Your task to perform on an android device: Go to CNN.com Image 0: 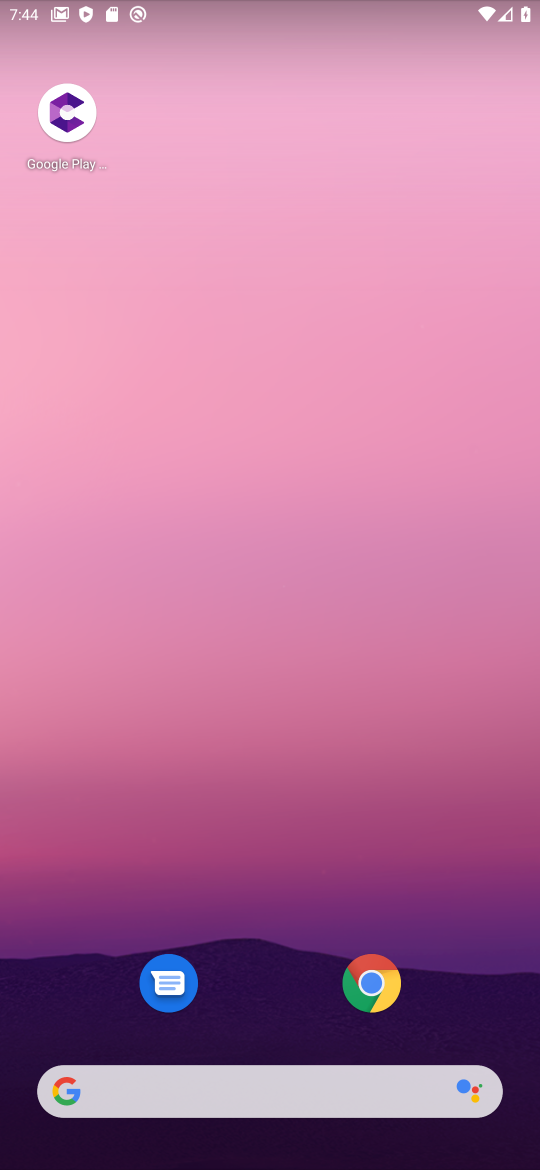
Step 0: click (386, 998)
Your task to perform on an android device: Go to CNN.com Image 1: 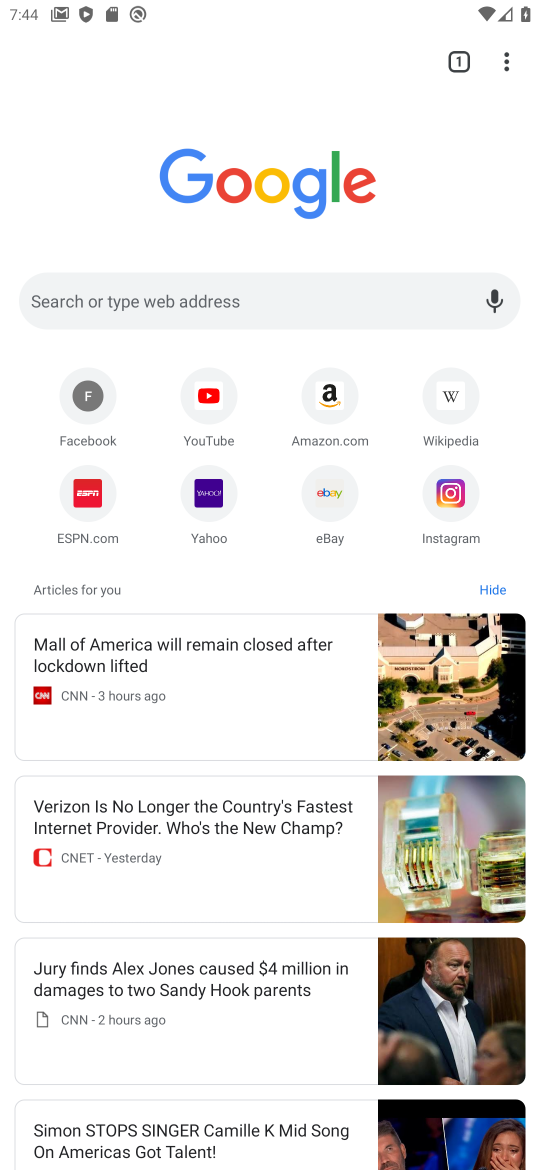
Step 1: click (237, 292)
Your task to perform on an android device: Go to CNN.com Image 2: 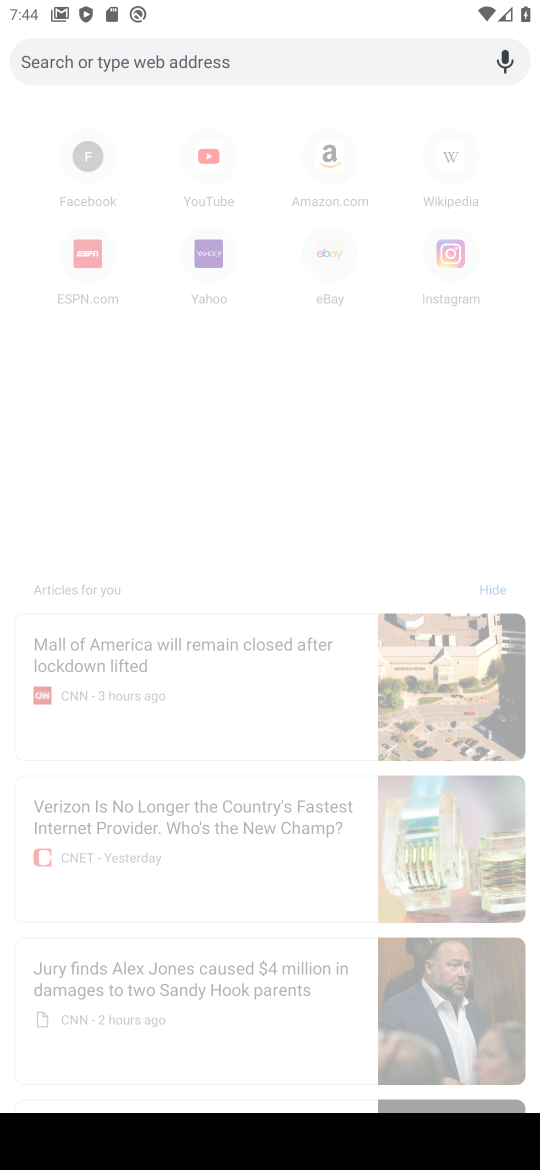
Step 2: type "CNN.com"
Your task to perform on an android device: Go to CNN.com Image 3: 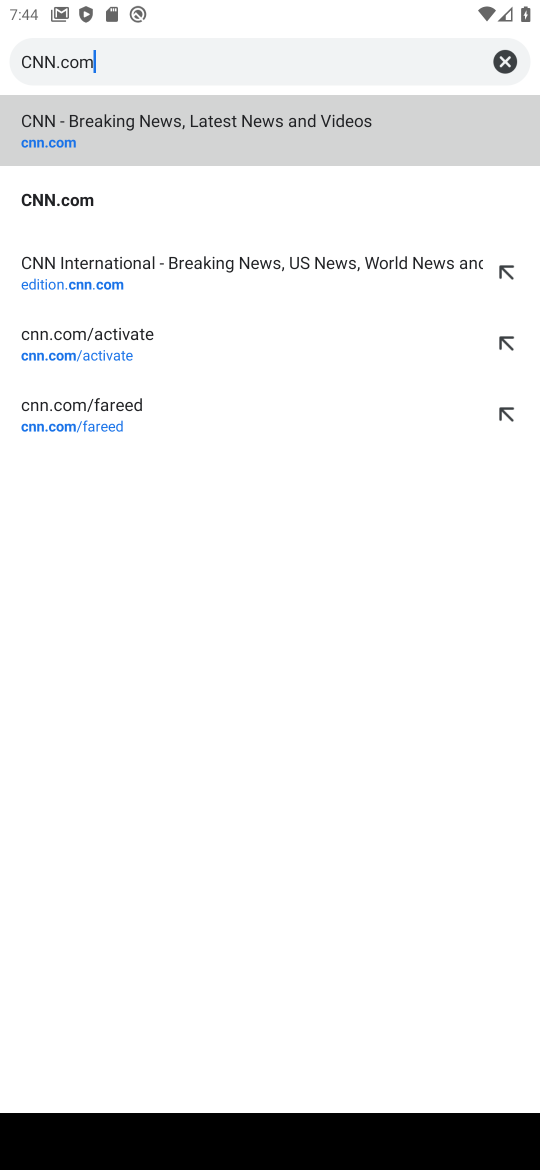
Step 3: click (218, 129)
Your task to perform on an android device: Go to CNN.com Image 4: 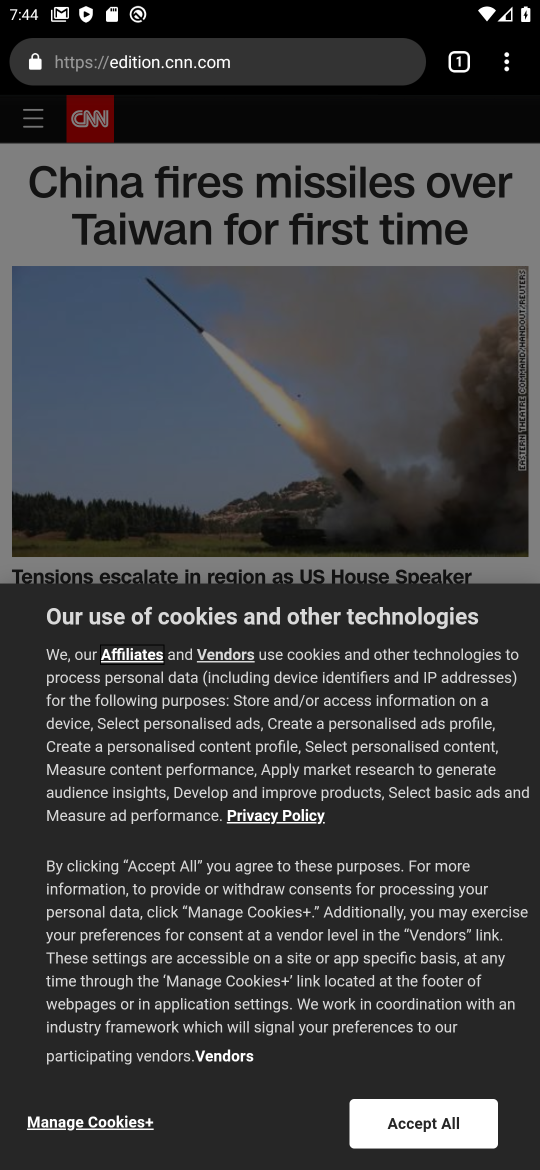
Step 4: task complete